Your task to perform on an android device: delete browsing data in the chrome app Image 0: 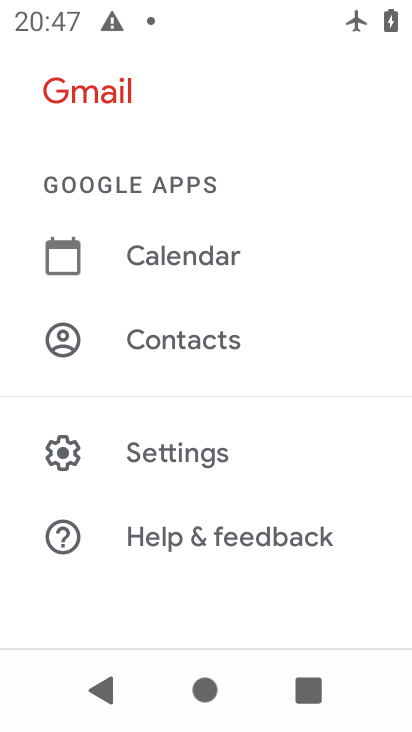
Step 0: press home button
Your task to perform on an android device: delete browsing data in the chrome app Image 1: 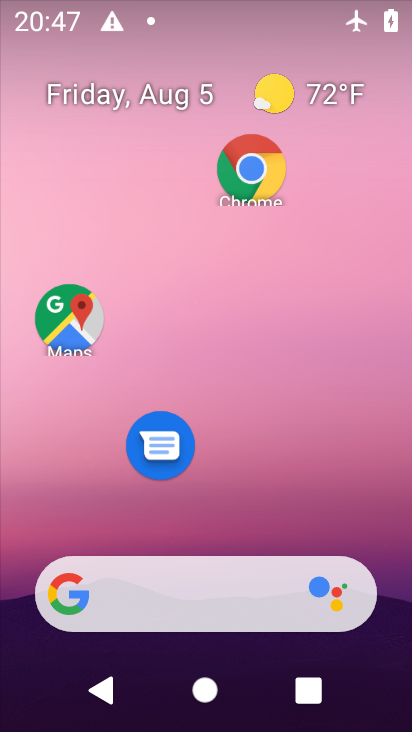
Step 1: click (273, 188)
Your task to perform on an android device: delete browsing data in the chrome app Image 2: 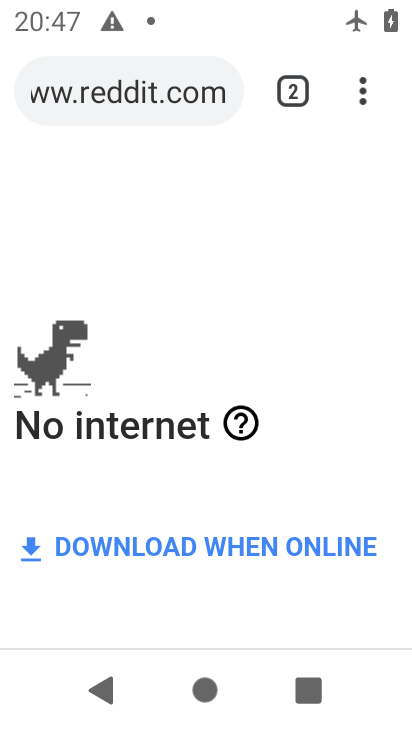
Step 2: click (359, 103)
Your task to perform on an android device: delete browsing data in the chrome app Image 3: 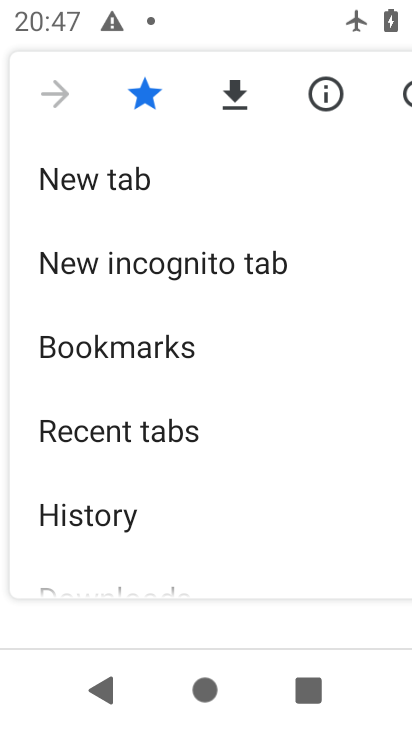
Step 3: click (166, 519)
Your task to perform on an android device: delete browsing data in the chrome app Image 4: 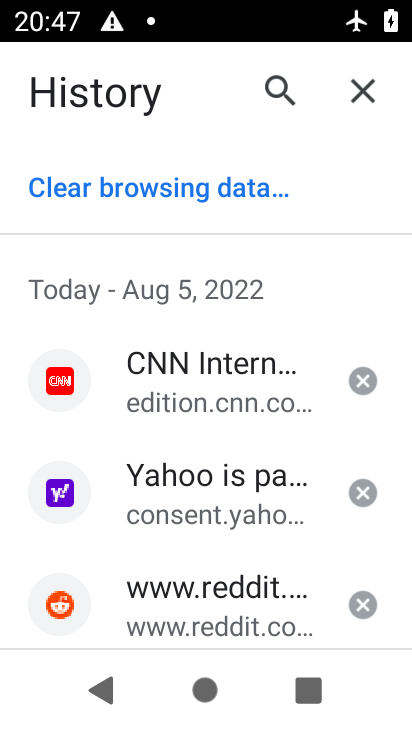
Step 4: click (106, 193)
Your task to perform on an android device: delete browsing data in the chrome app Image 5: 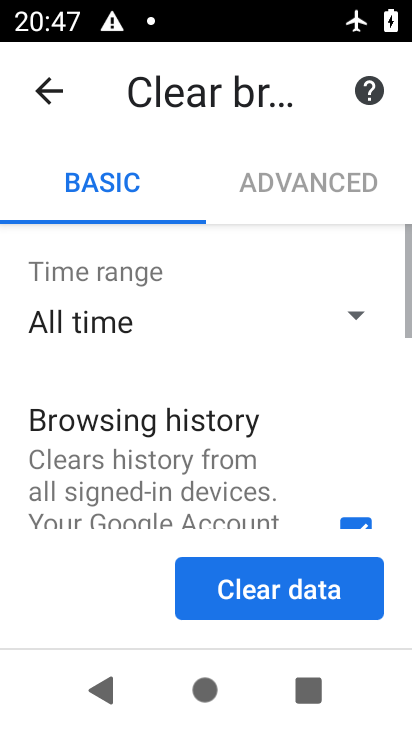
Step 5: drag from (220, 472) to (229, 201)
Your task to perform on an android device: delete browsing data in the chrome app Image 6: 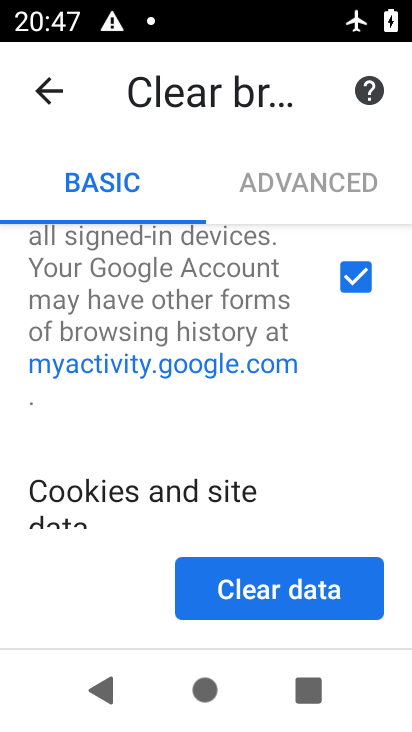
Step 6: drag from (253, 495) to (270, 186)
Your task to perform on an android device: delete browsing data in the chrome app Image 7: 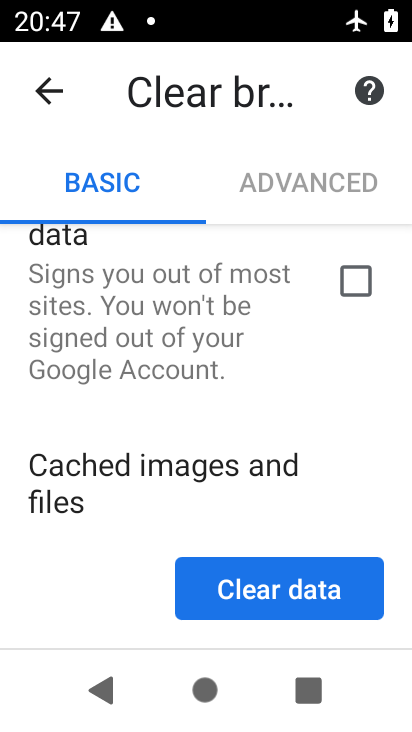
Step 7: click (360, 286)
Your task to perform on an android device: delete browsing data in the chrome app Image 8: 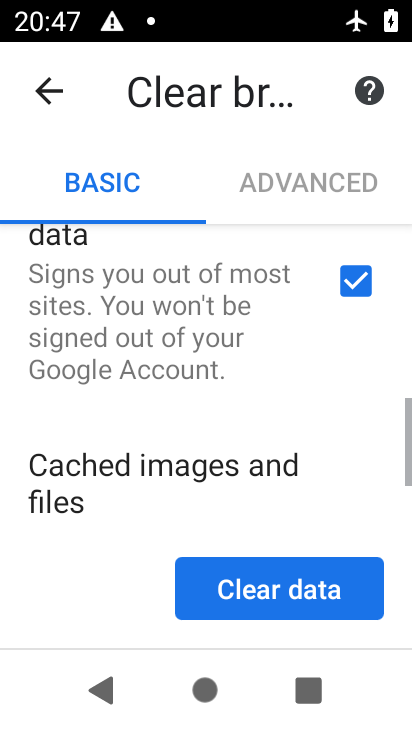
Step 8: drag from (223, 474) to (262, 236)
Your task to perform on an android device: delete browsing data in the chrome app Image 9: 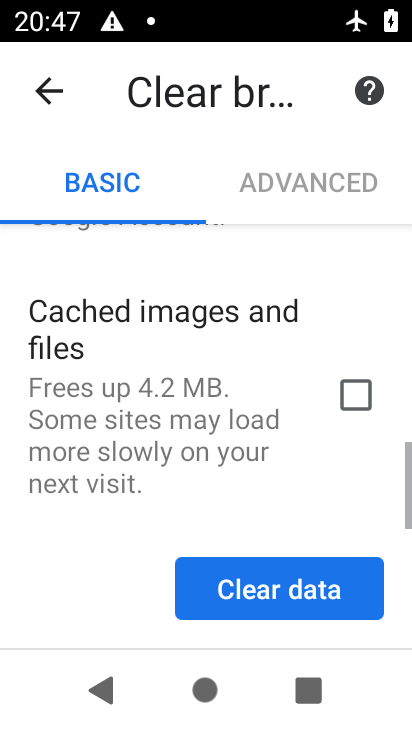
Step 9: click (354, 393)
Your task to perform on an android device: delete browsing data in the chrome app Image 10: 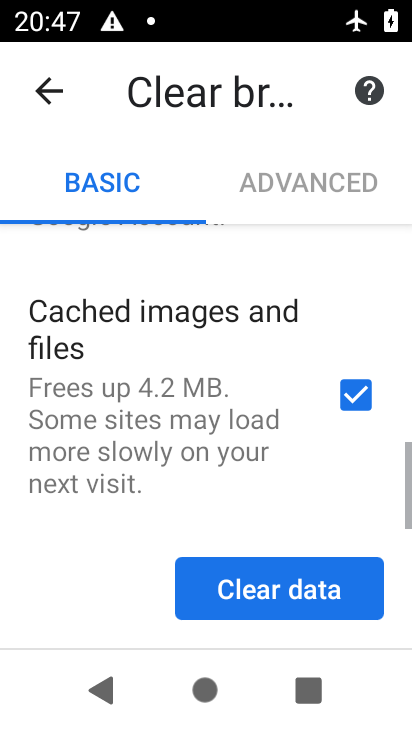
Step 10: click (282, 580)
Your task to perform on an android device: delete browsing data in the chrome app Image 11: 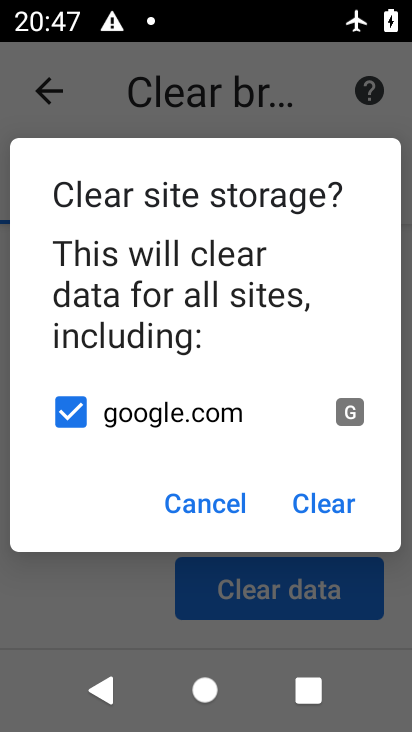
Step 11: click (340, 512)
Your task to perform on an android device: delete browsing data in the chrome app Image 12: 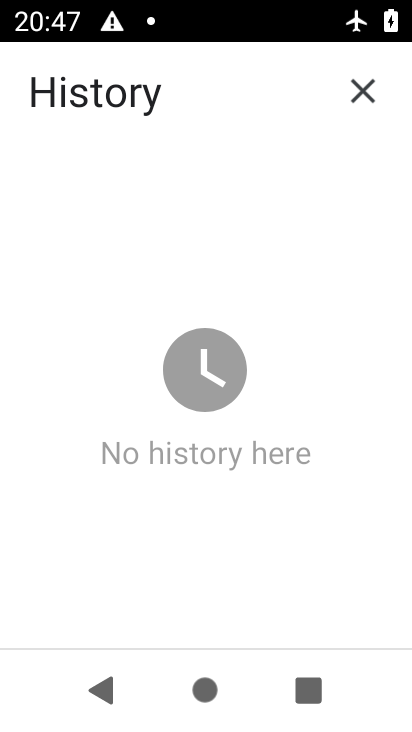
Step 12: task complete